Your task to perform on an android device: Check the weather Image 0: 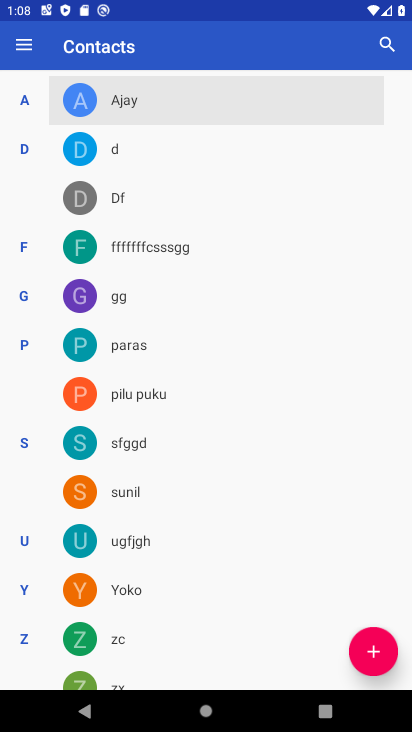
Step 0: press home button
Your task to perform on an android device: Check the weather Image 1: 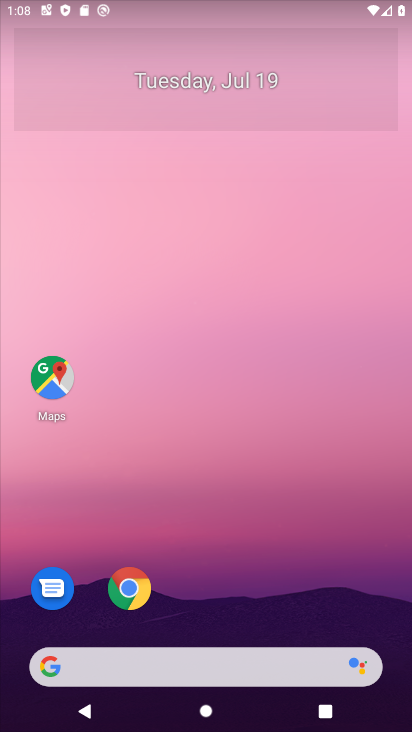
Step 1: click (87, 670)
Your task to perform on an android device: Check the weather Image 2: 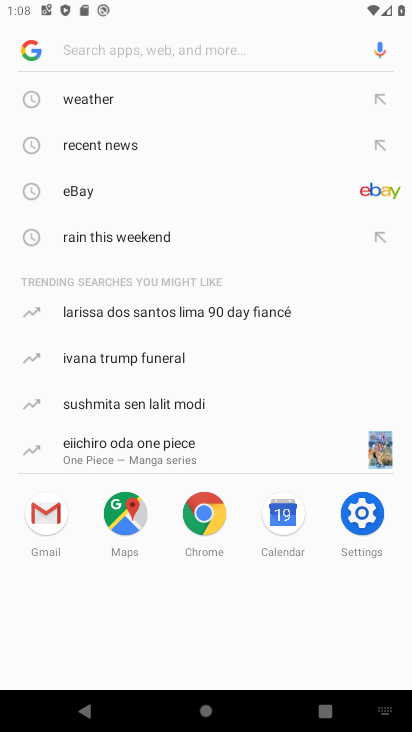
Step 2: click (78, 102)
Your task to perform on an android device: Check the weather Image 3: 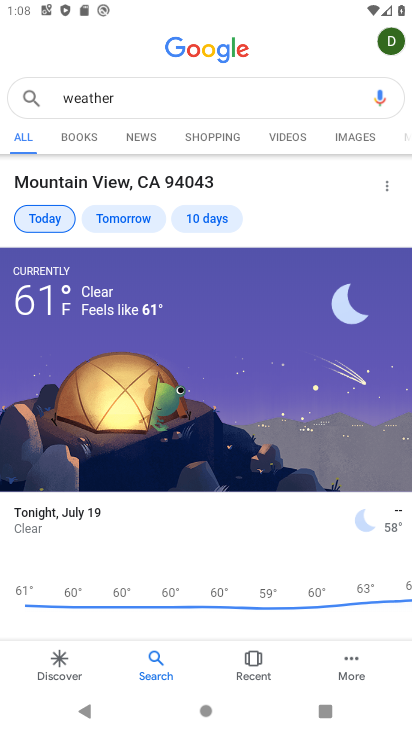
Step 3: task complete